Your task to perform on an android device: Go to network settings Image 0: 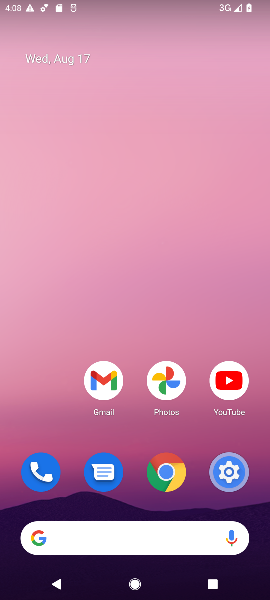
Step 0: drag from (130, 498) to (182, 163)
Your task to perform on an android device: Go to network settings Image 1: 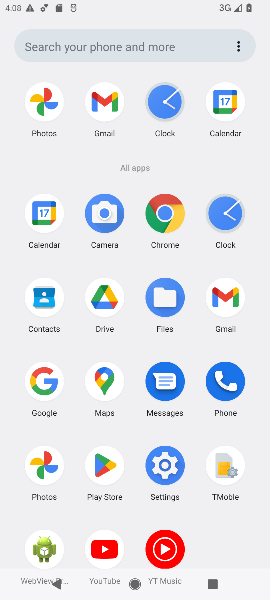
Step 1: click (167, 465)
Your task to perform on an android device: Go to network settings Image 2: 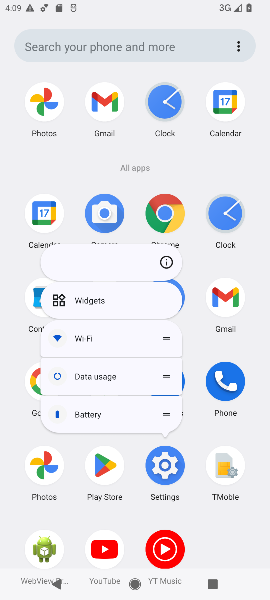
Step 2: click (168, 461)
Your task to perform on an android device: Go to network settings Image 3: 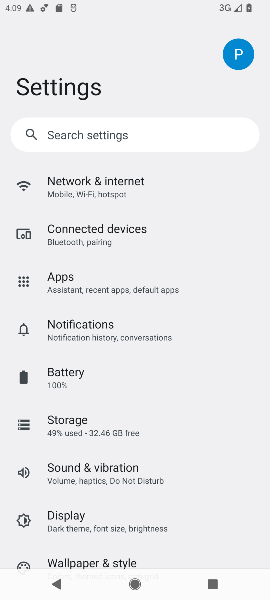
Step 3: click (104, 188)
Your task to perform on an android device: Go to network settings Image 4: 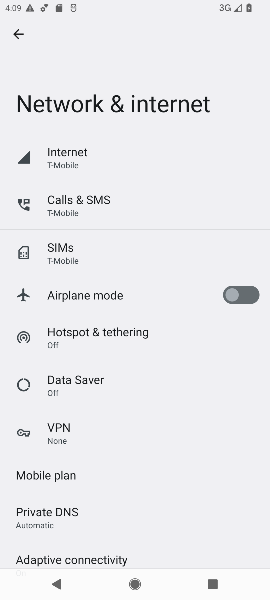
Step 4: task complete